Your task to perform on an android device: Open Reddit.com Image 0: 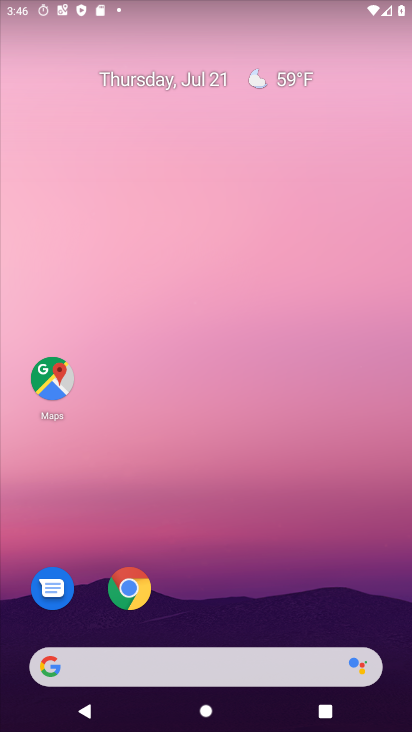
Step 0: click (131, 601)
Your task to perform on an android device: Open Reddit.com Image 1: 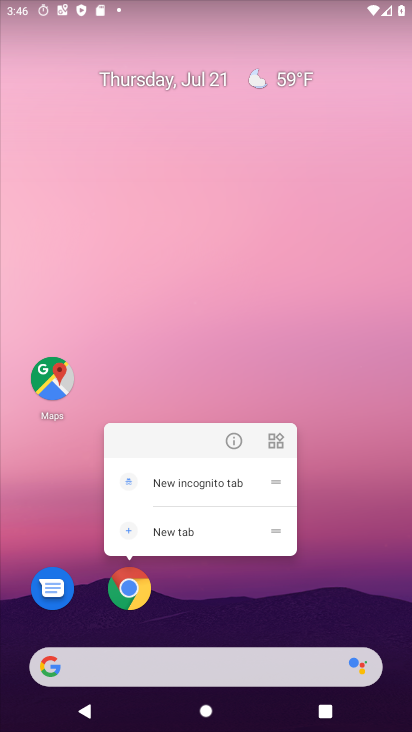
Step 1: click (137, 587)
Your task to perform on an android device: Open Reddit.com Image 2: 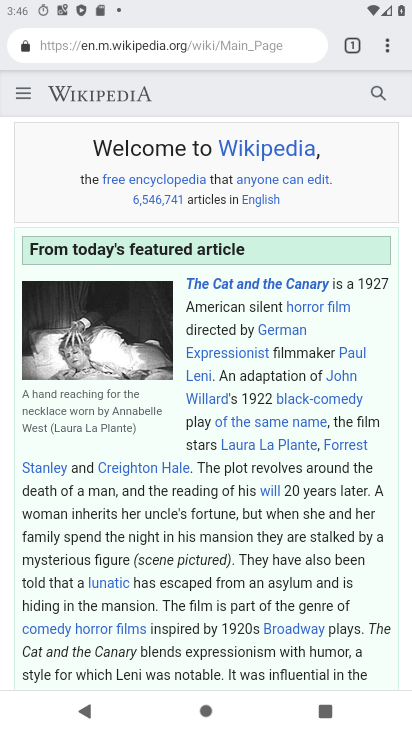
Step 2: click (172, 47)
Your task to perform on an android device: Open Reddit.com Image 3: 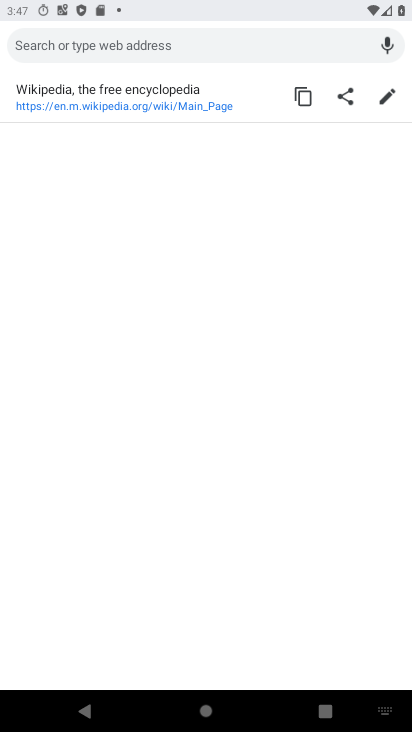
Step 3: type "Reddit.com"
Your task to perform on an android device: Open Reddit.com Image 4: 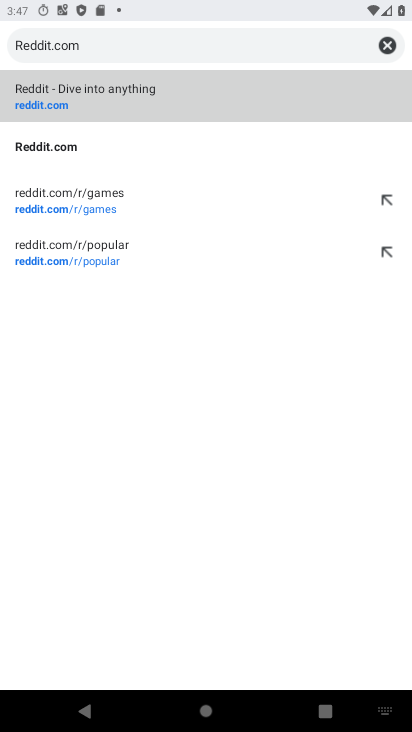
Step 4: click (81, 143)
Your task to perform on an android device: Open Reddit.com Image 5: 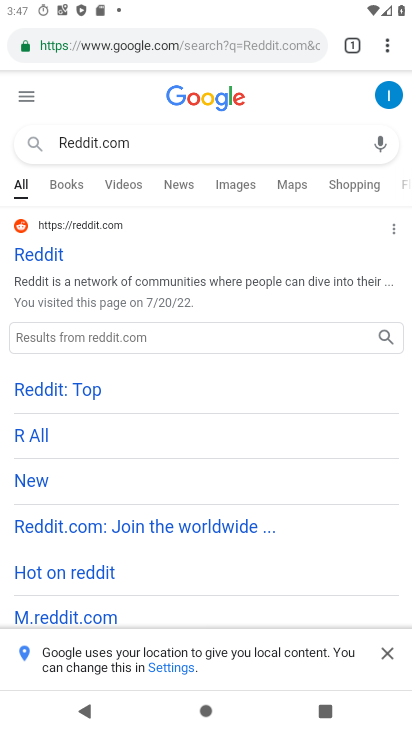
Step 5: task complete